Your task to perform on an android device: Open privacy settings Image 0: 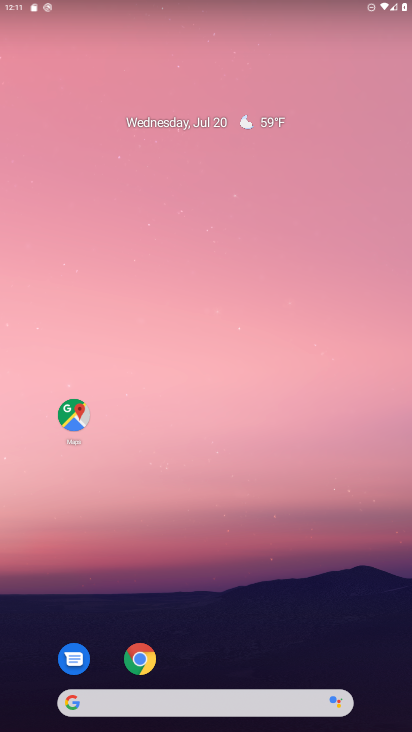
Step 0: drag from (231, 615) to (165, 23)
Your task to perform on an android device: Open privacy settings Image 1: 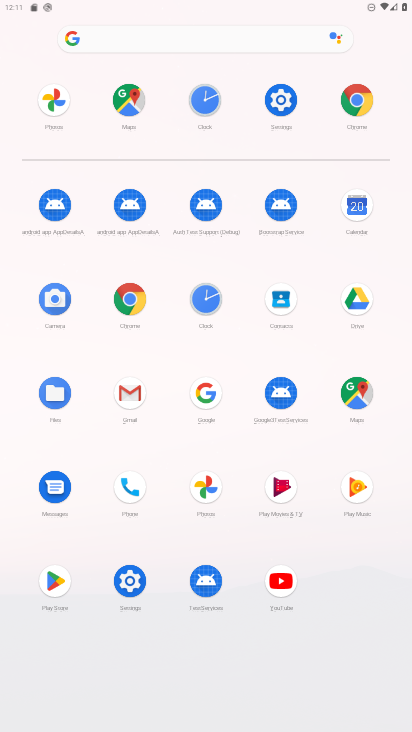
Step 1: click (269, 91)
Your task to perform on an android device: Open privacy settings Image 2: 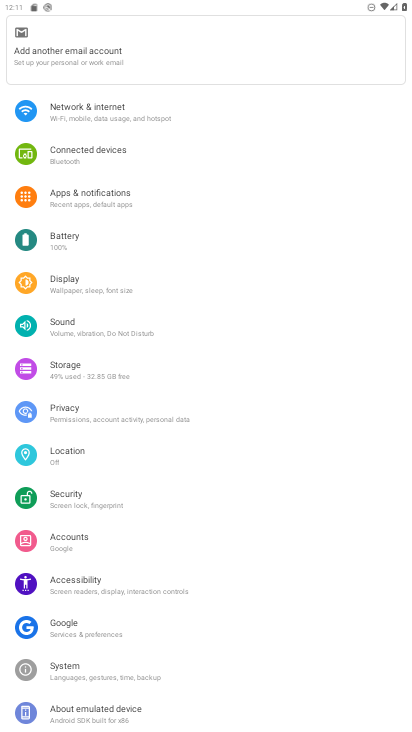
Step 2: click (115, 405)
Your task to perform on an android device: Open privacy settings Image 3: 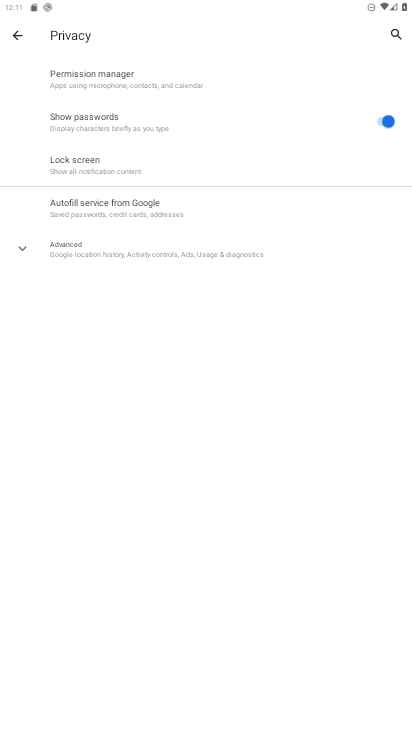
Step 3: task complete